Your task to perform on an android device: snooze an email in the gmail app Image 0: 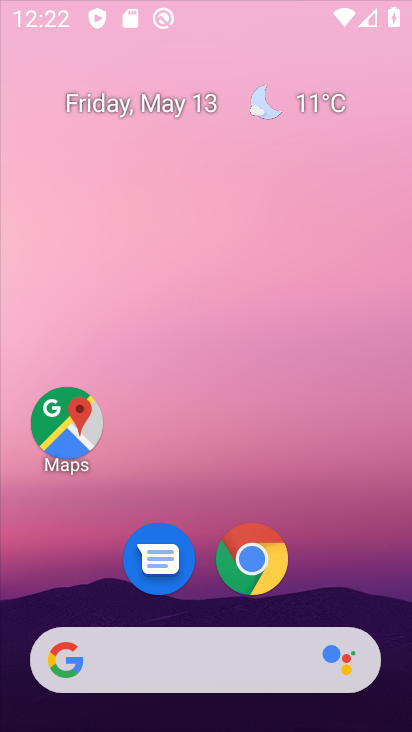
Step 0: press home button
Your task to perform on an android device: snooze an email in the gmail app Image 1: 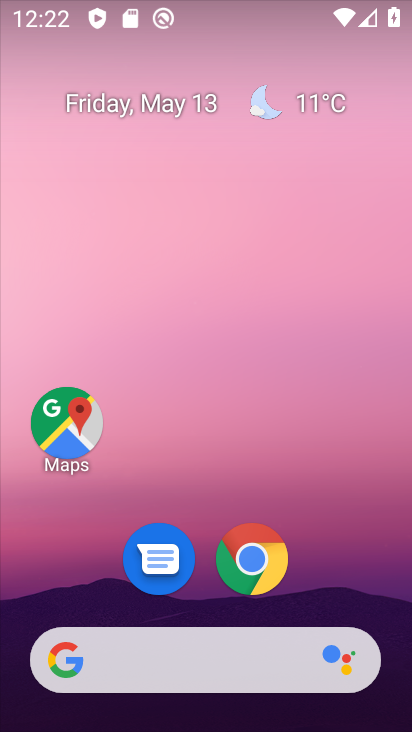
Step 1: drag from (74, 588) to (190, 105)
Your task to perform on an android device: snooze an email in the gmail app Image 2: 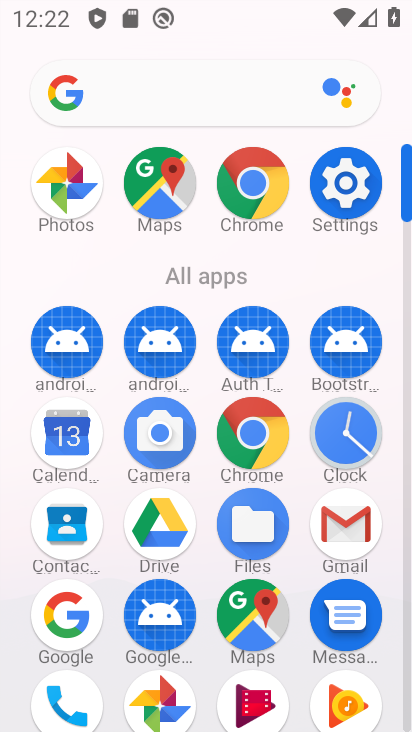
Step 2: click (350, 525)
Your task to perform on an android device: snooze an email in the gmail app Image 3: 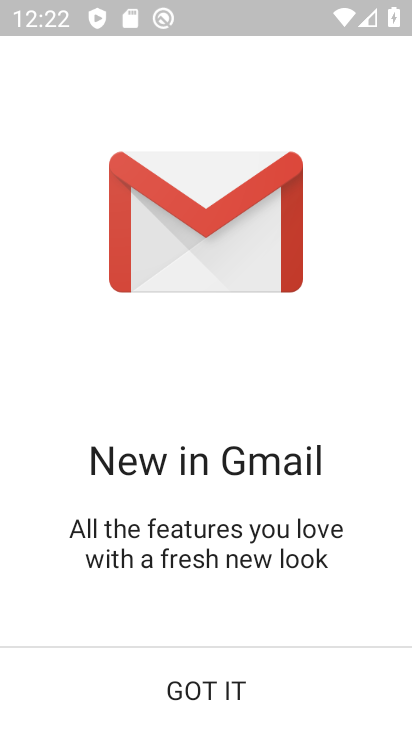
Step 3: click (192, 695)
Your task to perform on an android device: snooze an email in the gmail app Image 4: 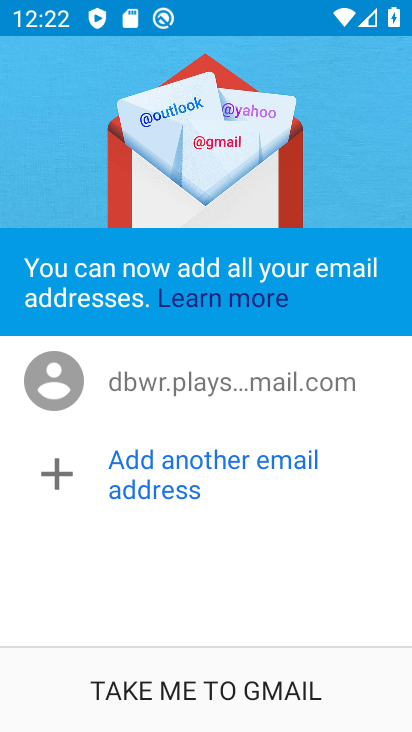
Step 4: click (192, 695)
Your task to perform on an android device: snooze an email in the gmail app Image 5: 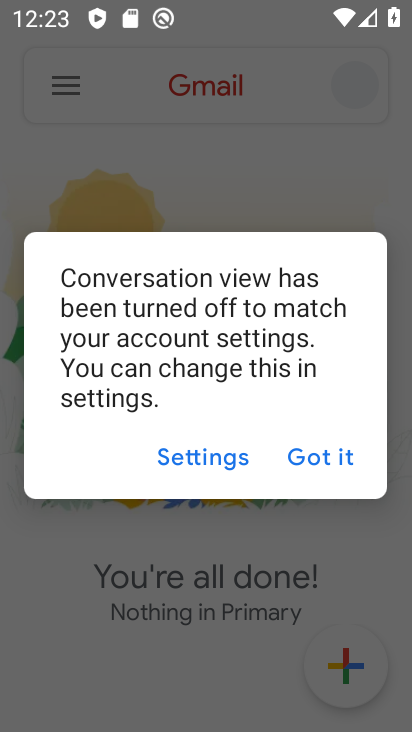
Step 5: click (302, 461)
Your task to perform on an android device: snooze an email in the gmail app Image 6: 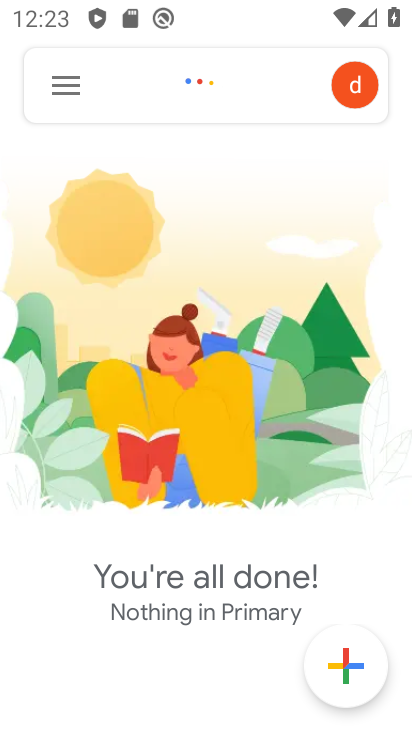
Step 6: click (62, 84)
Your task to perform on an android device: snooze an email in the gmail app Image 7: 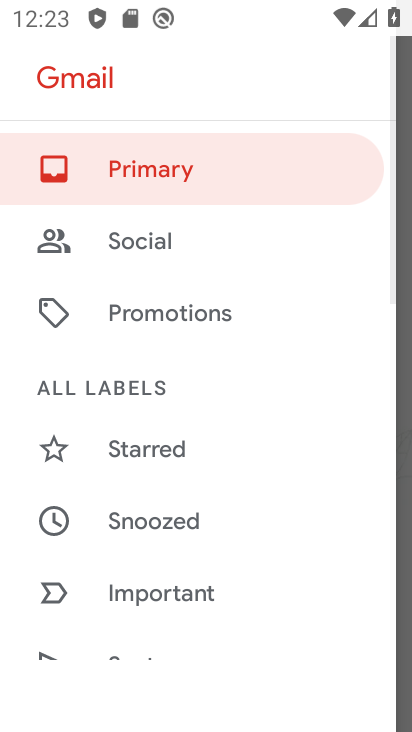
Step 7: click (165, 510)
Your task to perform on an android device: snooze an email in the gmail app Image 8: 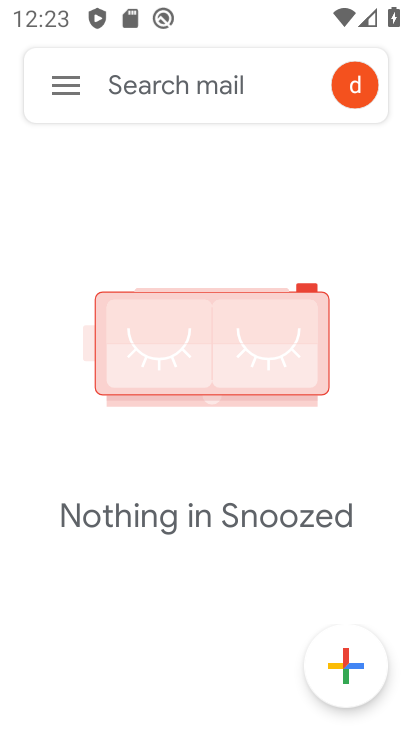
Step 8: task complete